Your task to perform on an android device: Open calendar and show me the fourth week of next month Image 0: 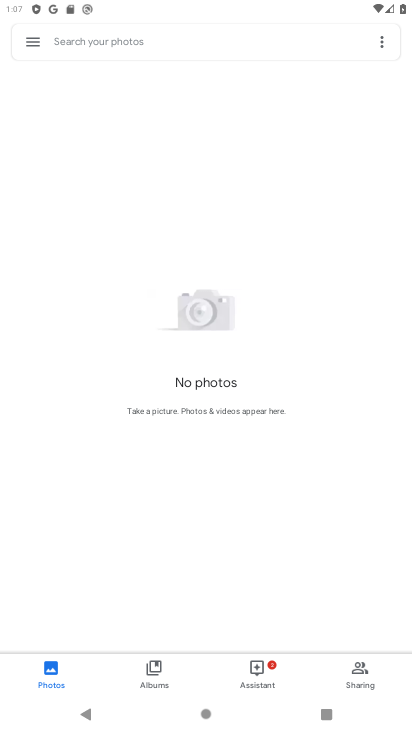
Step 0: press home button
Your task to perform on an android device: Open calendar and show me the fourth week of next month Image 1: 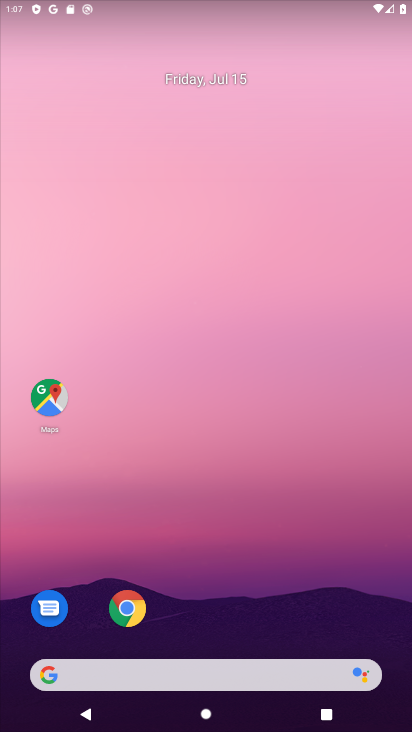
Step 1: drag from (234, 701) to (340, 179)
Your task to perform on an android device: Open calendar and show me the fourth week of next month Image 2: 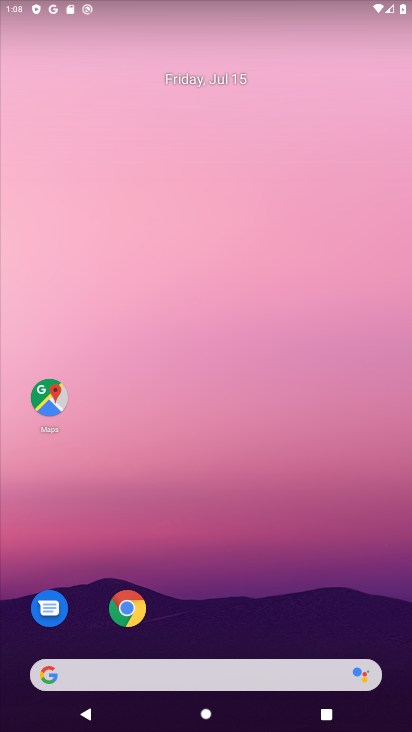
Step 2: drag from (285, 711) to (339, 13)
Your task to perform on an android device: Open calendar and show me the fourth week of next month Image 3: 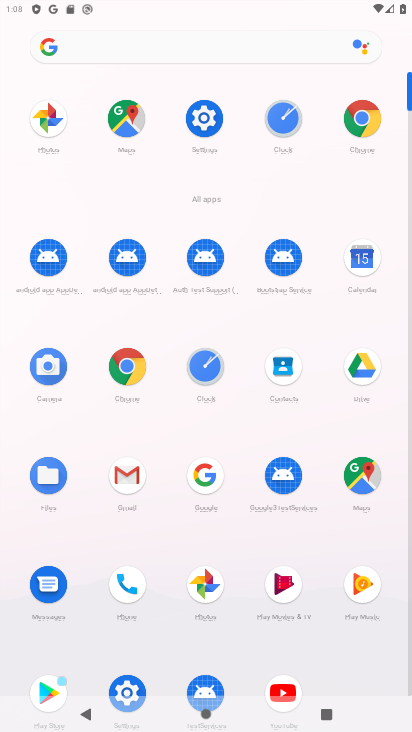
Step 3: click (370, 256)
Your task to perform on an android device: Open calendar and show me the fourth week of next month Image 4: 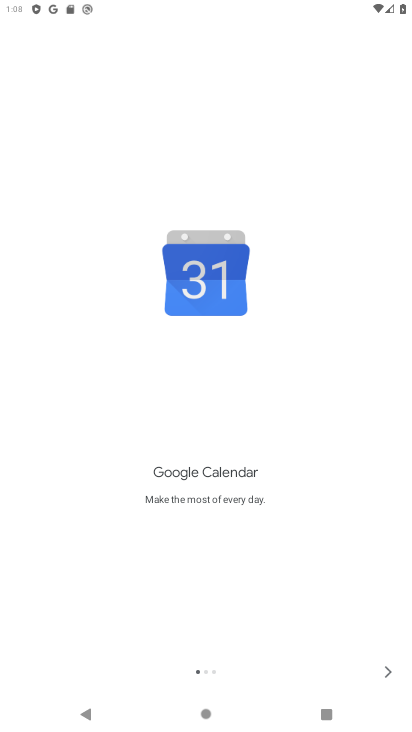
Step 4: click (389, 668)
Your task to perform on an android device: Open calendar and show me the fourth week of next month Image 5: 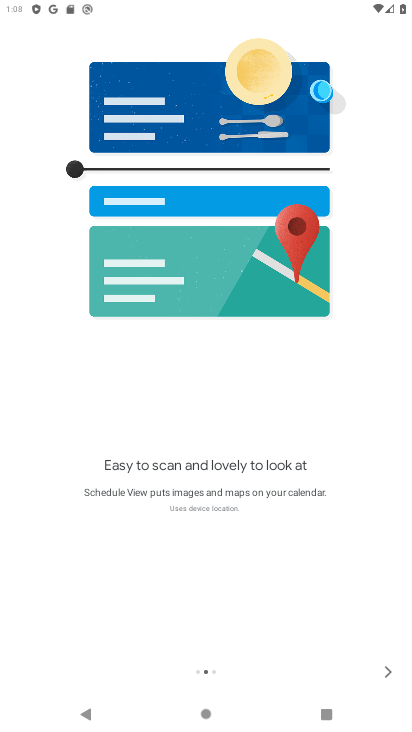
Step 5: click (389, 668)
Your task to perform on an android device: Open calendar and show me the fourth week of next month Image 6: 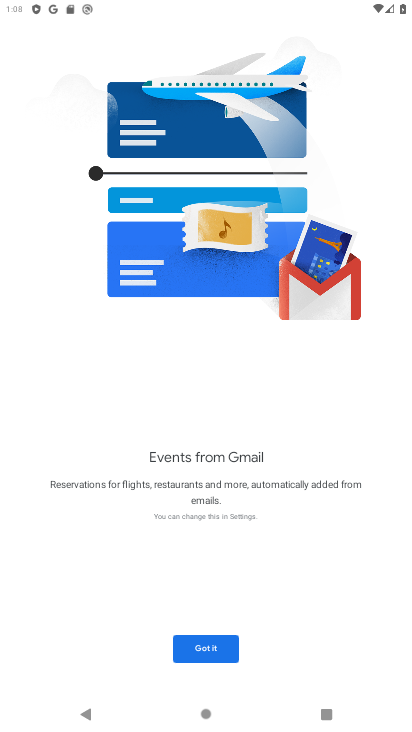
Step 6: click (210, 653)
Your task to perform on an android device: Open calendar and show me the fourth week of next month Image 7: 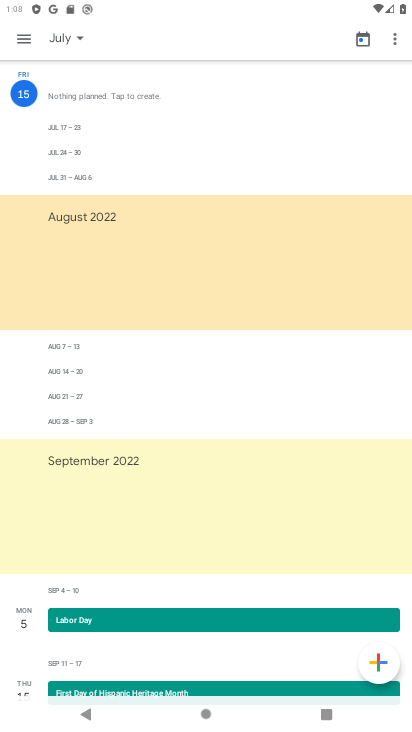
Step 7: click (58, 37)
Your task to perform on an android device: Open calendar and show me the fourth week of next month Image 8: 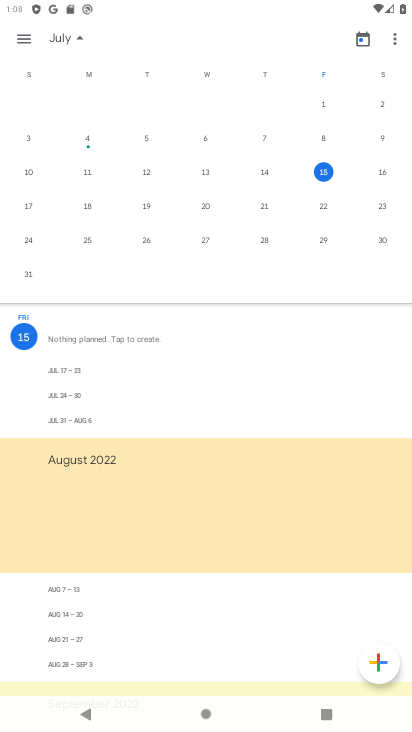
Step 8: drag from (399, 161) to (6, 220)
Your task to perform on an android device: Open calendar and show me the fourth week of next month Image 9: 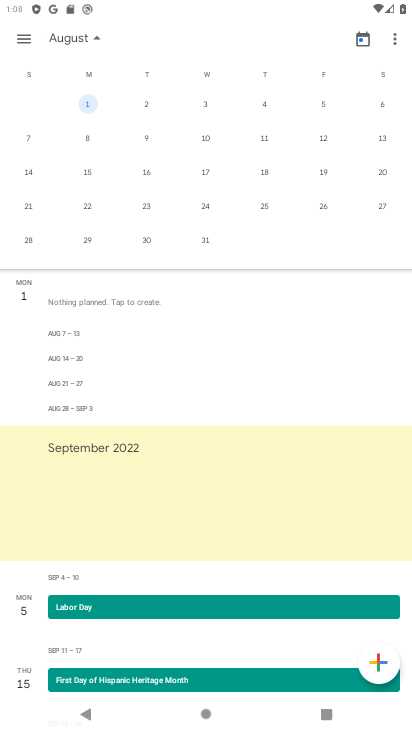
Step 9: click (24, 201)
Your task to perform on an android device: Open calendar and show me the fourth week of next month Image 10: 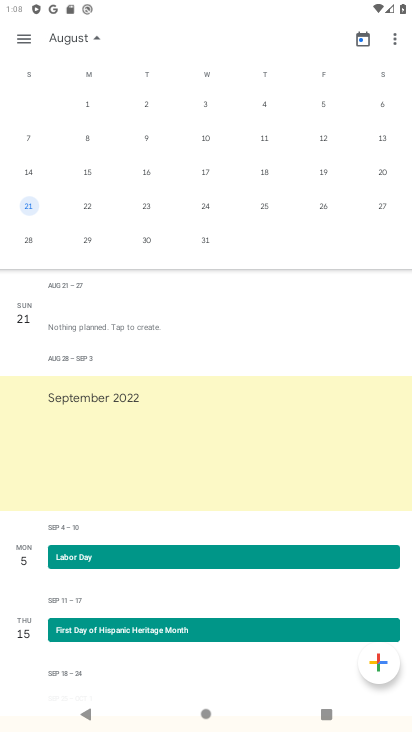
Step 10: task complete